Your task to perform on an android device: Open settings on Google Maps Image 0: 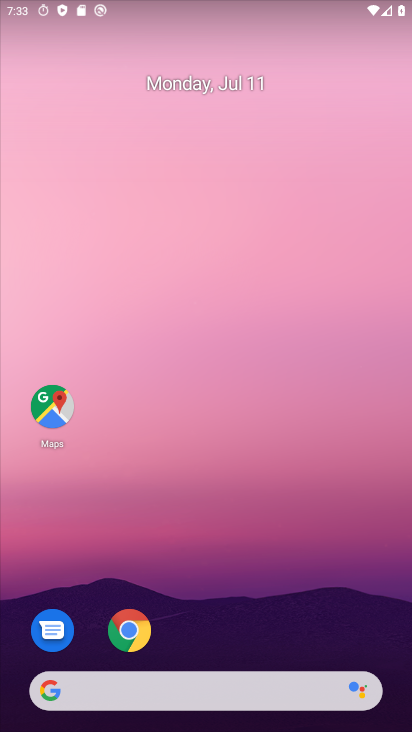
Step 0: drag from (186, 690) to (255, 618)
Your task to perform on an android device: Open settings on Google Maps Image 1: 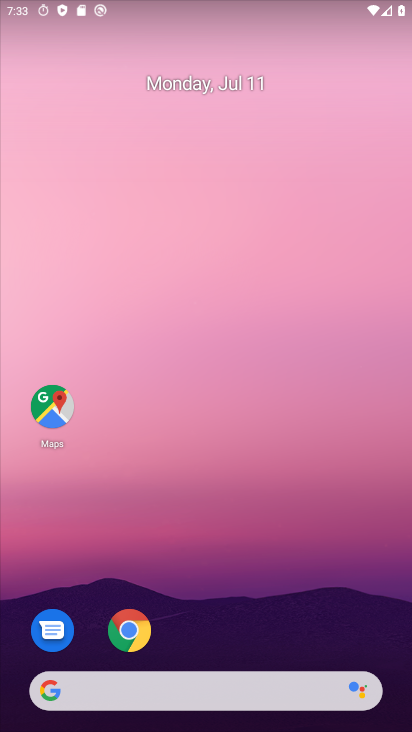
Step 1: click (41, 402)
Your task to perform on an android device: Open settings on Google Maps Image 2: 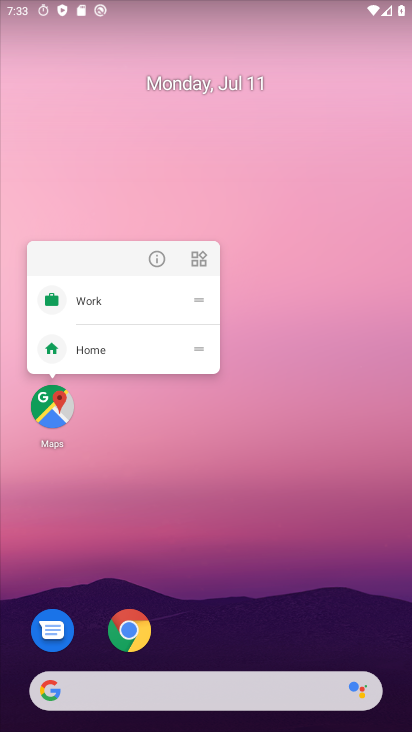
Step 2: click (42, 409)
Your task to perform on an android device: Open settings on Google Maps Image 3: 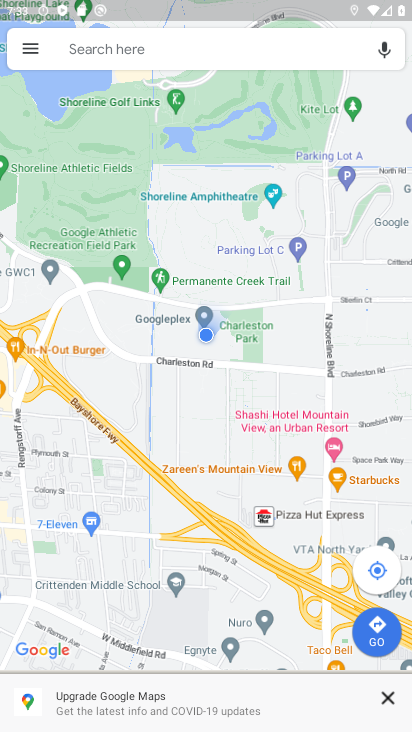
Step 3: click (34, 43)
Your task to perform on an android device: Open settings on Google Maps Image 4: 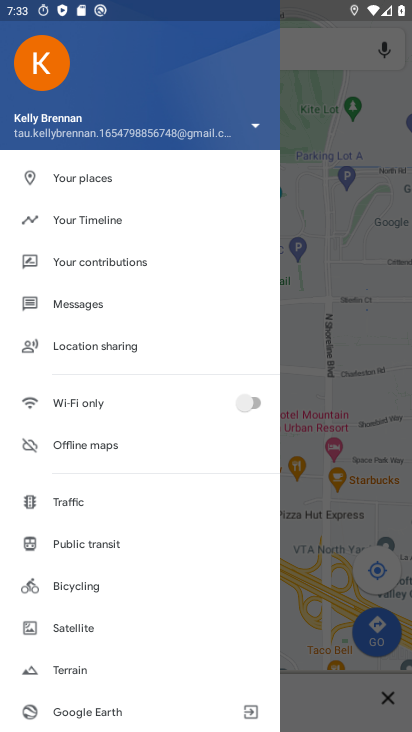
Step 4: drag from (115, 633) to (289, 187)
Your task to perform on an android device: Open settings on Google Maps Image 5: 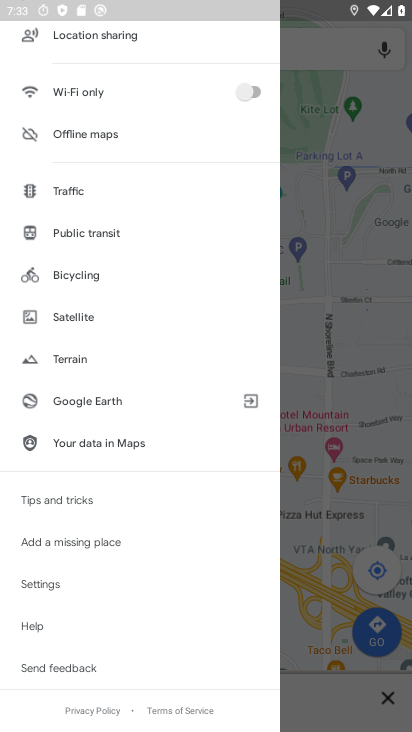
Step 5: click (44, 576)
Your task to perform on an android device: Open settings on Google Maps Image 6: 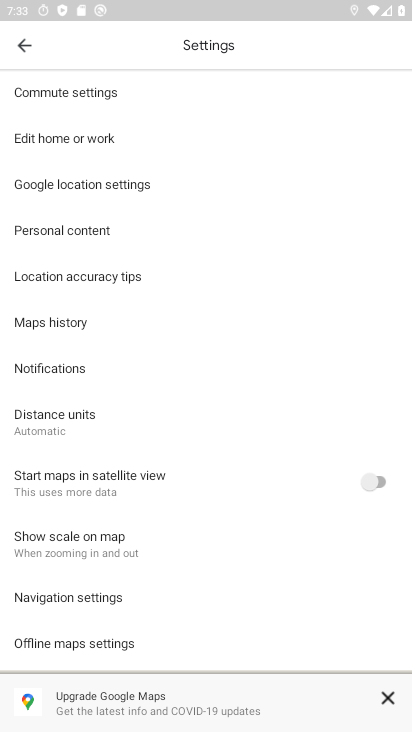
Step 6: task complete